Your task to perform on an android device: Search for the new ikea dresser Image 0: 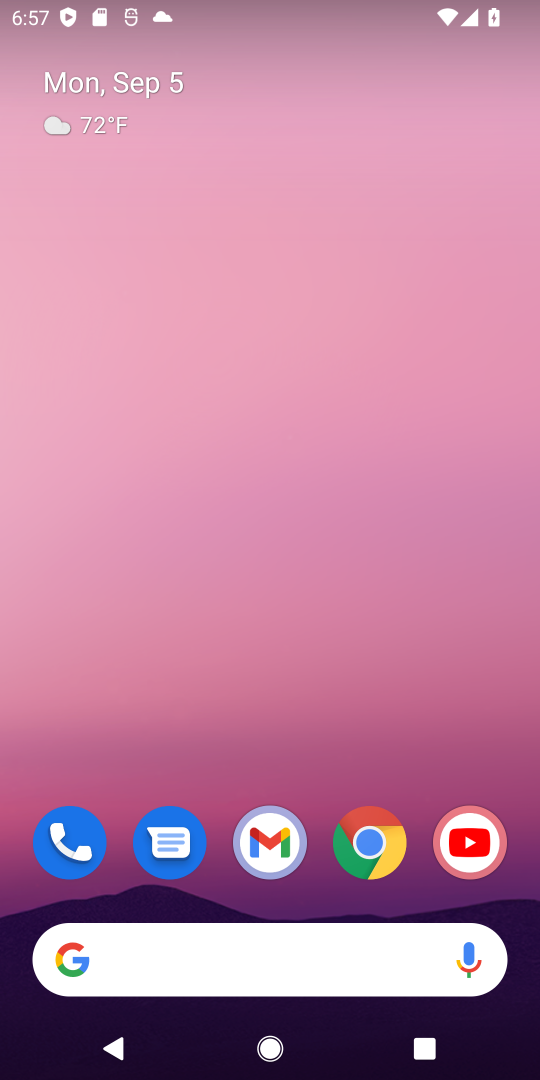
Step 0: click (369, 844)
Your task to perform on an android device: Search for the new ikea dresser Image 1: 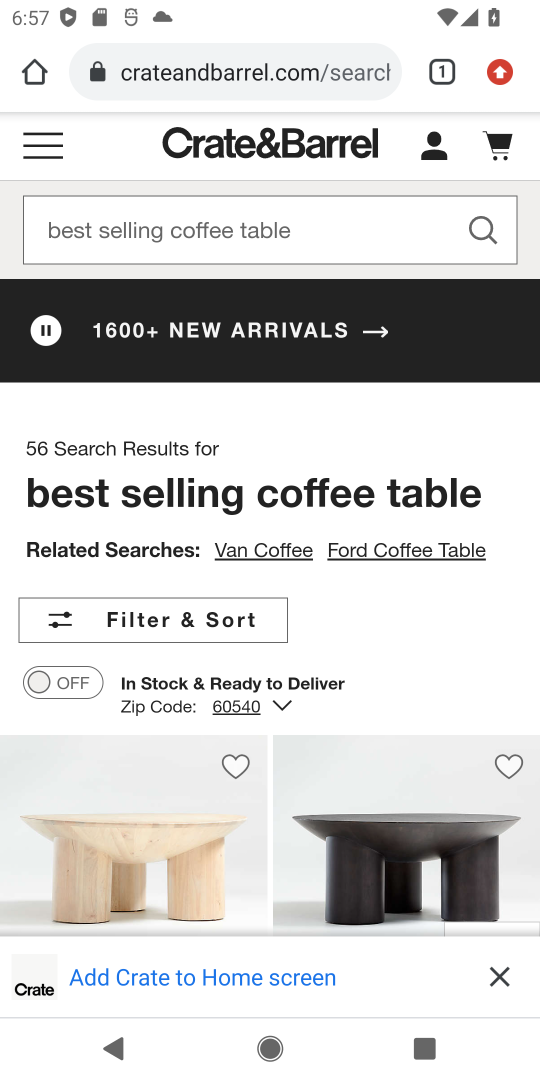
Step 1: click (343, 65)
Your task to perform on an android device: Search for the new ikea dresser Image 2: 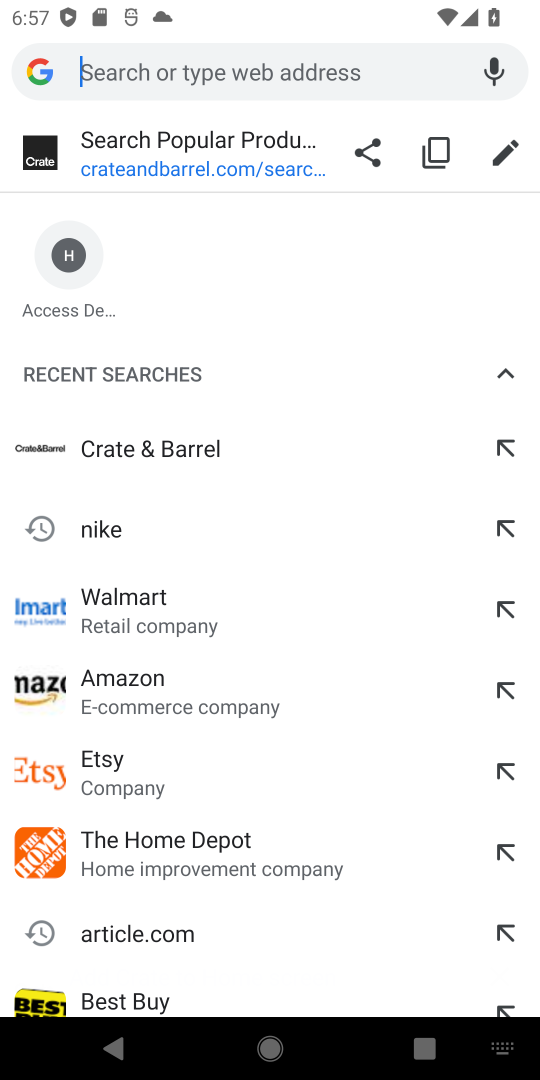
Step 2: click (363, 91)
Your task to perform on an android device: Search for the new ikea dresser Image 3: 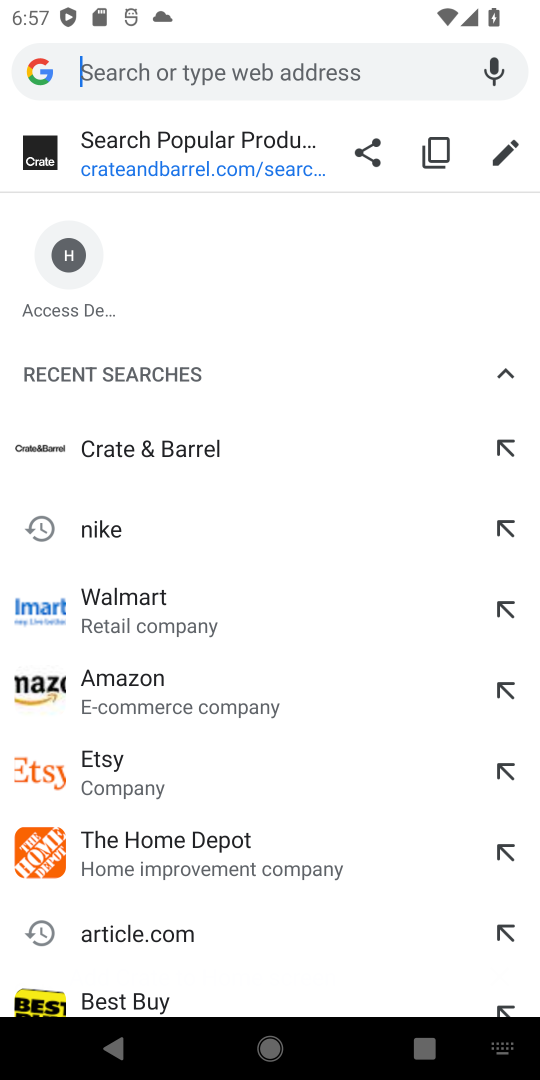
Step 3: type "new ikea dresser"
Your task to perform on an android device: Search for the new ikea dresser Image 4: 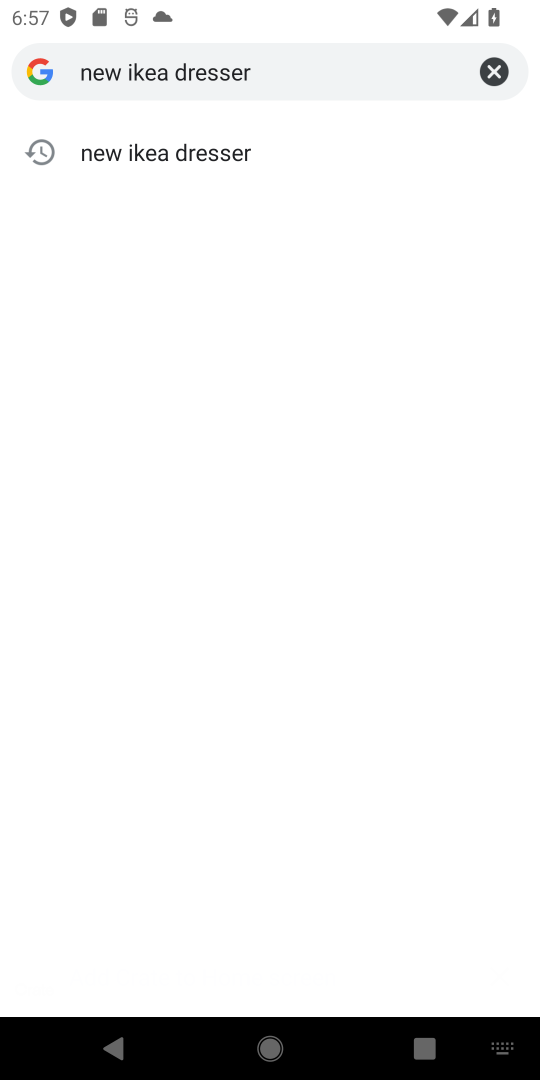
Step 4: click (177, 165)
Your task to perform on an android device: Search for the new ikea dresser Image 5: 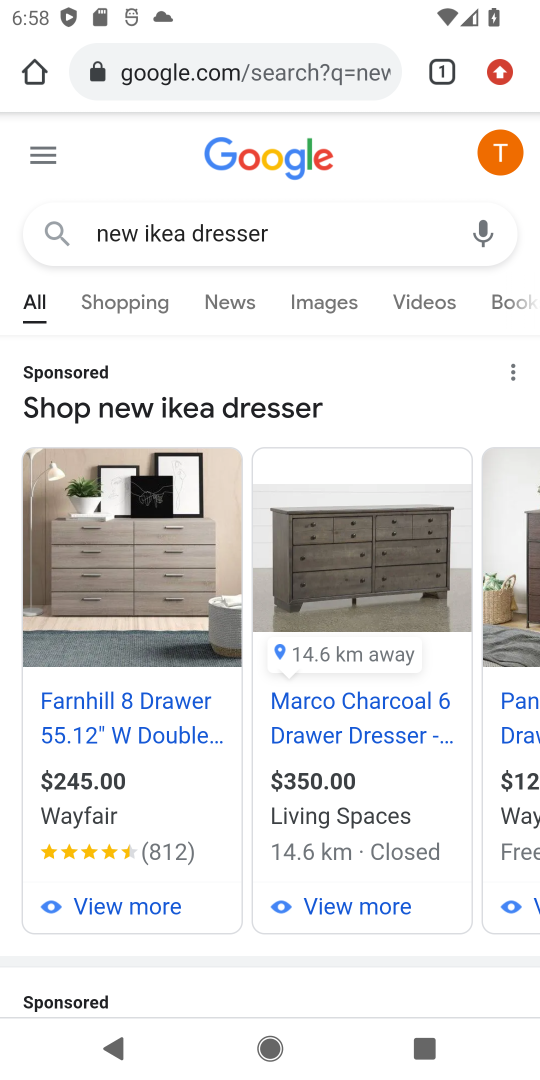
Step 5: task complete